Your task to perform on an android device: Do I have any events this weekend? Image 0: 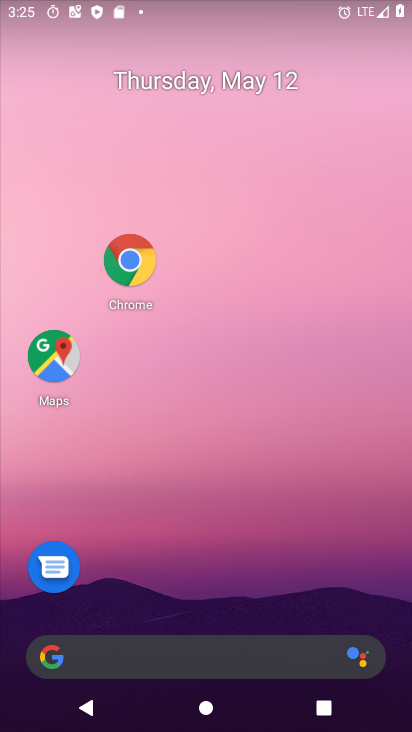
Step 0: drag from (212, 626) to (231, 287)
Your task to perform on an android device: Do I have any events this weekend? Image 1: 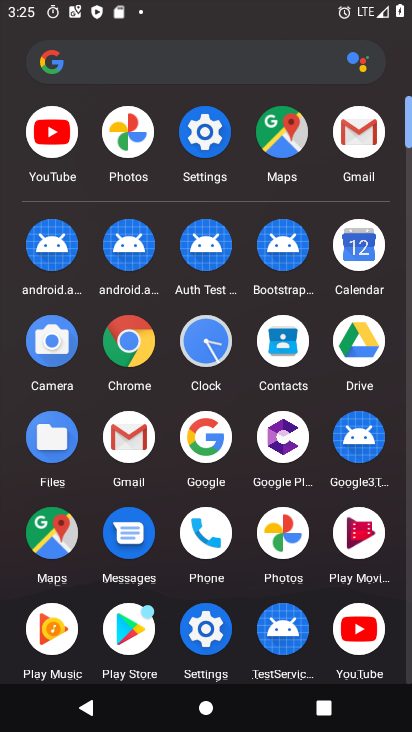
Step 1: click (359, 252)
Your task to perform on an android device: Do I have any events this weekend? Image 2: 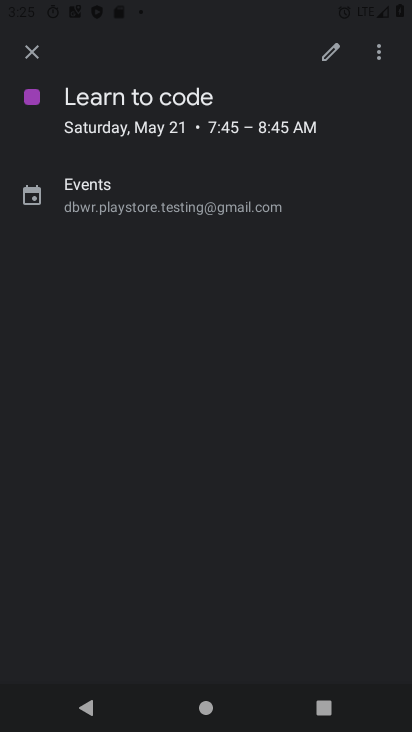
Step 2: click (31, 50)
Your task to perform on an android device: Do I have any events this weekend? Image 3: 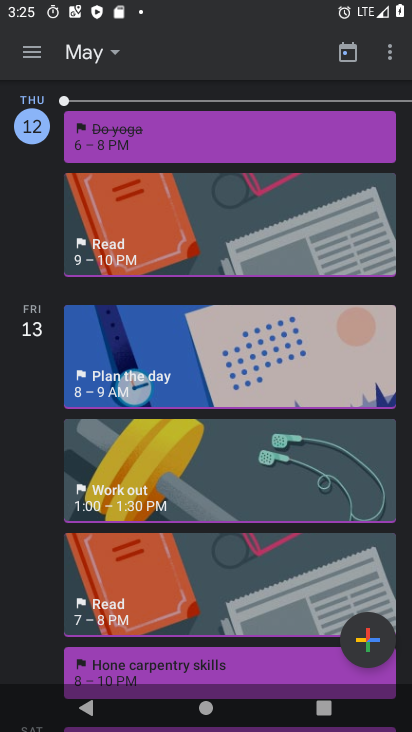
Step 3: click (89, 57)
Your task to perform on an android device: Do I have any events this weekend? Image 4: 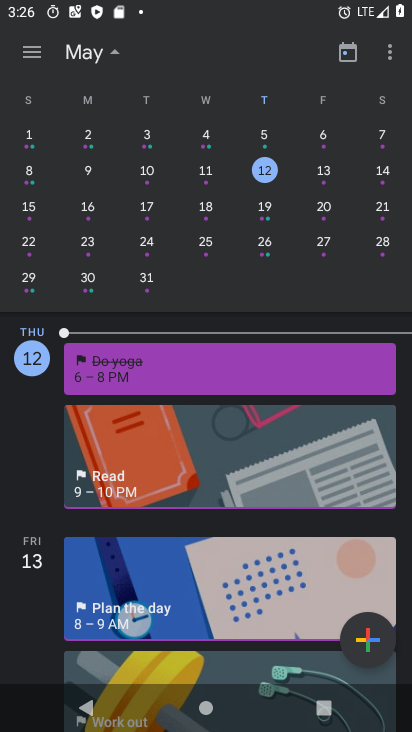
Step 4: click (379, 174)
Your task to perform on an android device: Do I have any events this weekend? Image 5: 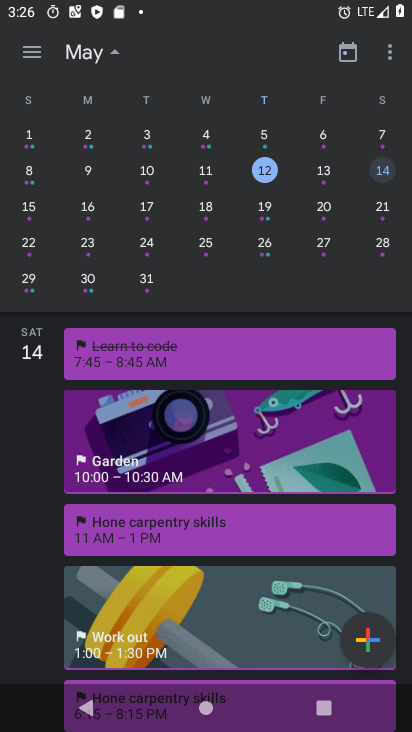
Step 5: task complete